Your task to perform on an android device: open app "Fetch Rewards" (install if not already installed), go to login, and select forgot password Image 0: 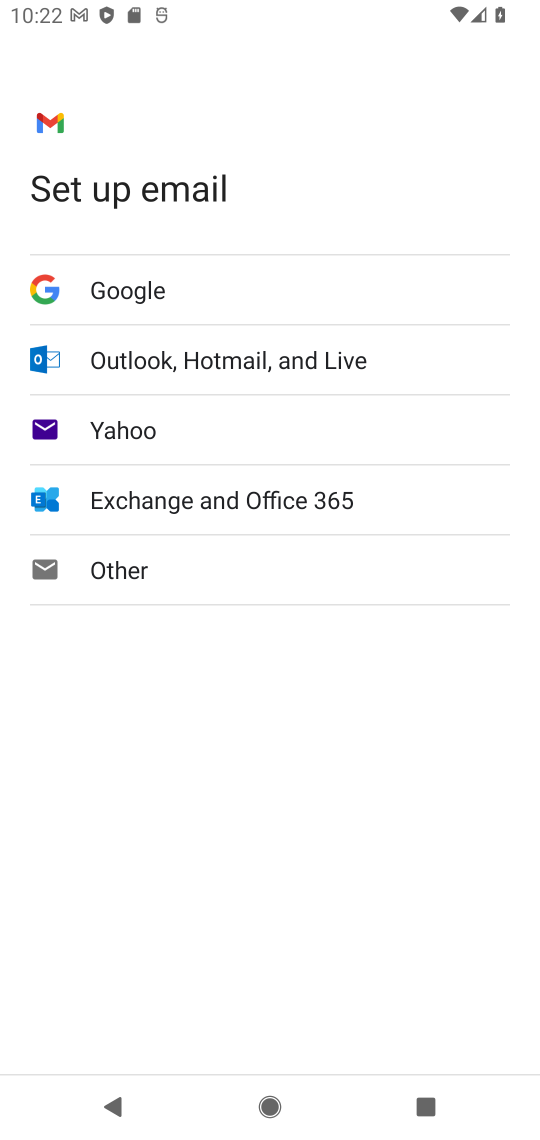
Step 0: press home button
Your task to perform on an android device: open app "Fetch Rewards" (install if not already installed), go to login, and select forgot password Image 1: 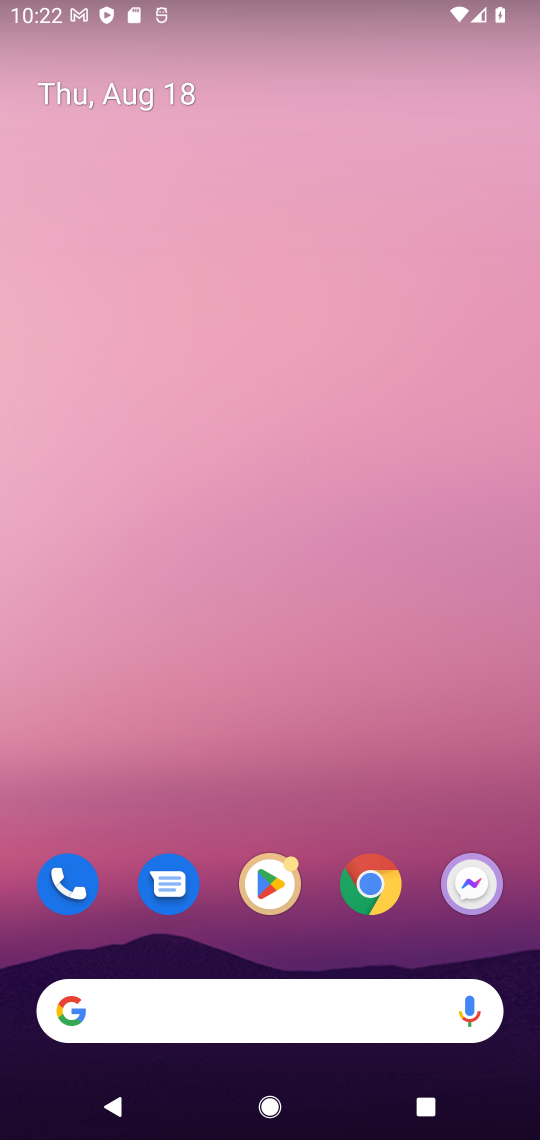
Step 1: drag from (214, 996) to (390, 206)
Your task to perform on an android device: open app "Fetch Rewards" (install if not already installed), go to login, and select forgot password Image 2: 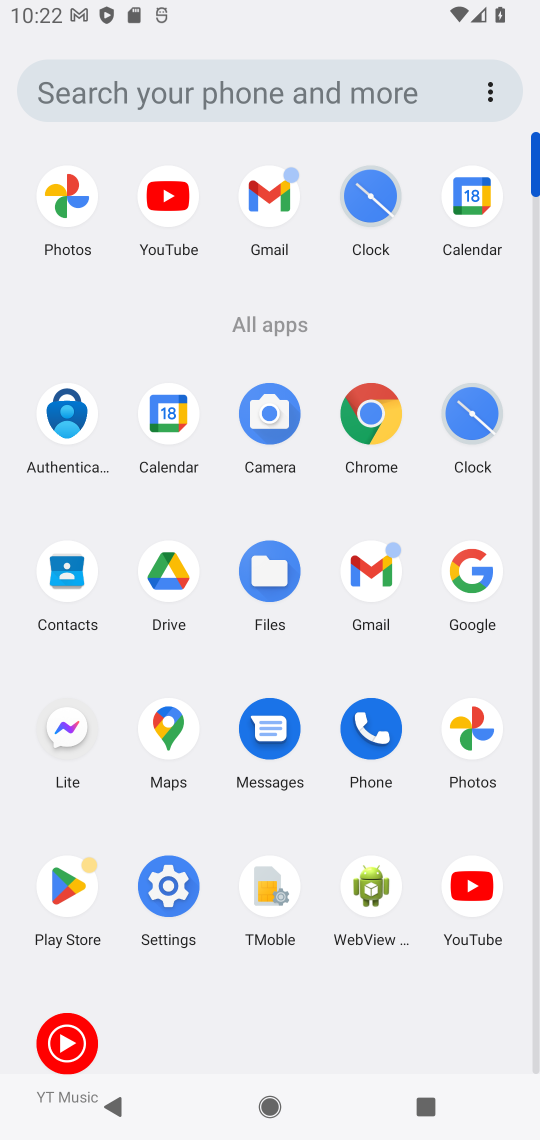
Step 2: click (69, 887)
Your task to perform on an android device: open app "Fetch Rewards" (install if not already installed), go to login, and select forgot password Image 3: 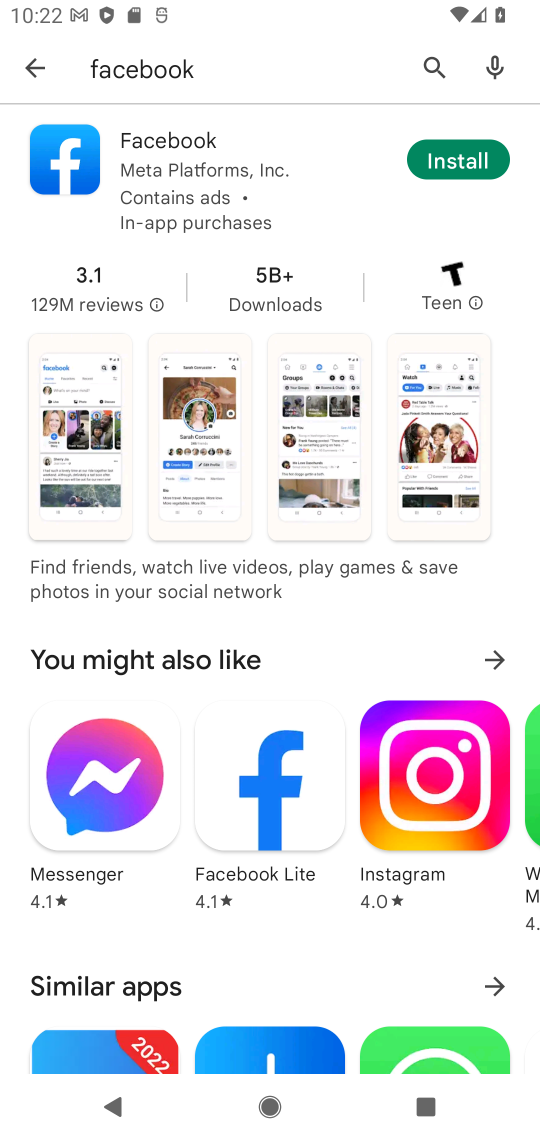
Step 3: press back button
Your task to perform on an android device: open app "Fetch Rewards" (install if not already installed), go to login, and select forgot password Image 4: 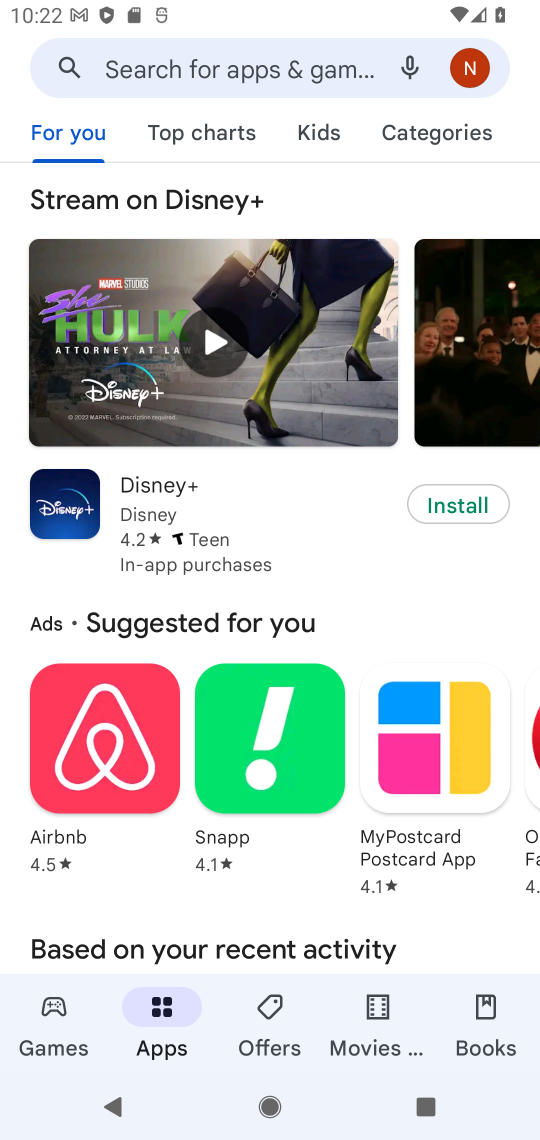
Step 4: click (317, 70)
Your task to perform on an android device: open app "Fetch Rewards" (install if not already installed), go to login, and select forgot password Image 5: 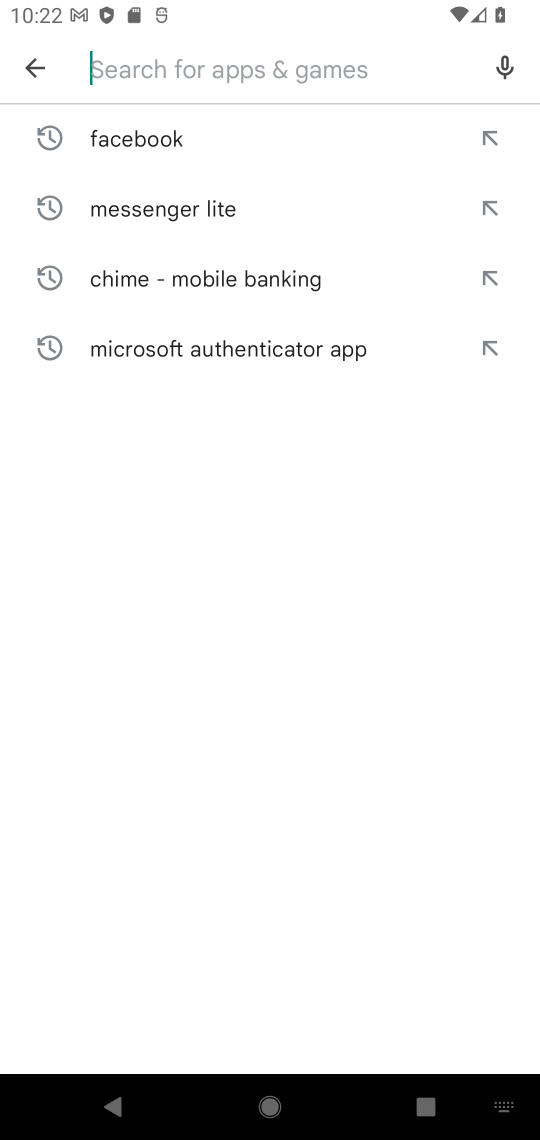
Step 5: type "Fetch Rewards"
Your task to perform on an android device: open app "Fetch Rewards" (install if not already installed), go to login, and select forgot password Image 6: 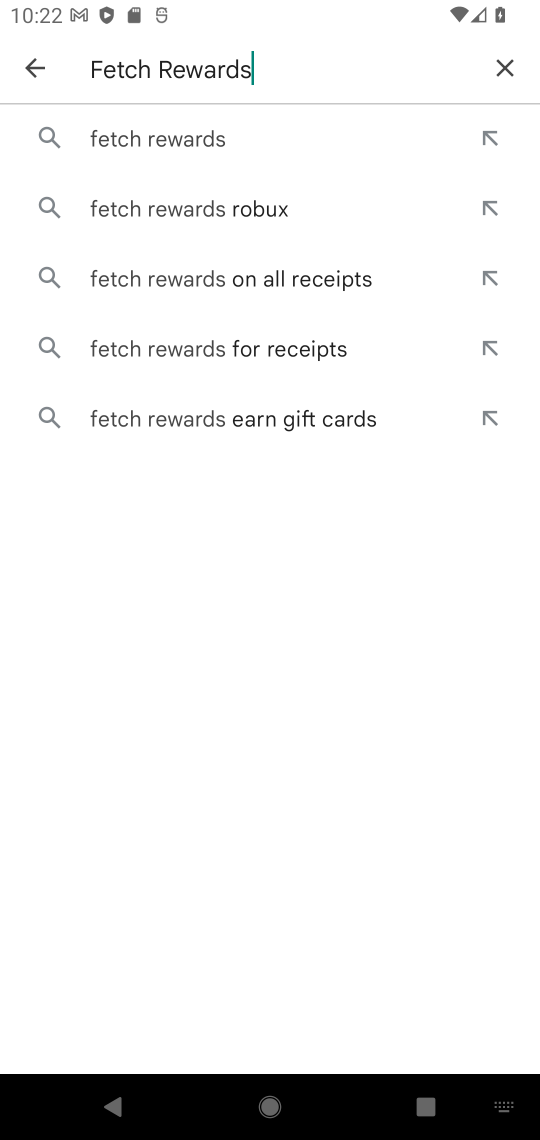
Step 6: click (191, 131)
Your task to perform on an android device: open app "Fetch Rewards" (install if not already installed), go to login, and select forgot password Image 7: 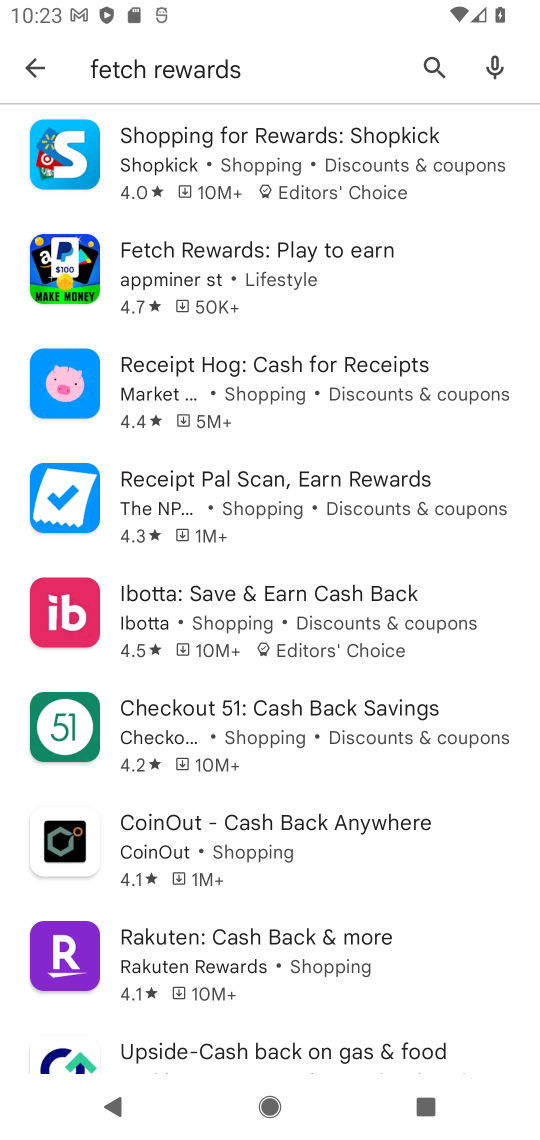
Step 7: click (208, 249)
Your task to perform on an android device: open app "Fetch Rewards" (install if not already installed), go to login, and select forgot password Image 8: 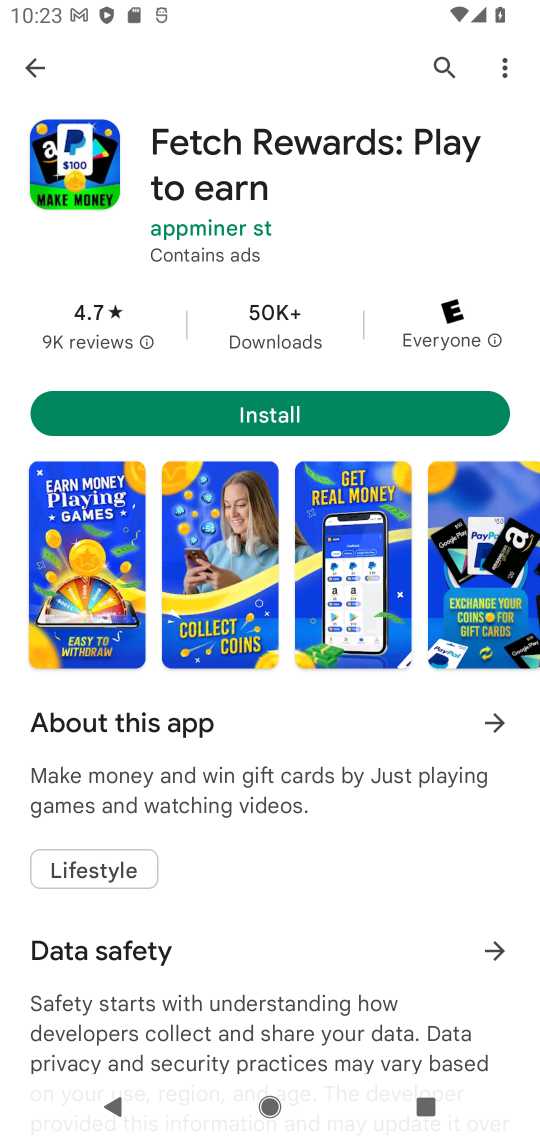
Step 8: click (281, 415)
Your task to perform on an android device: open app "Fetch Rewards" (install if not already installed), go to login, and select forgot password Image 9: 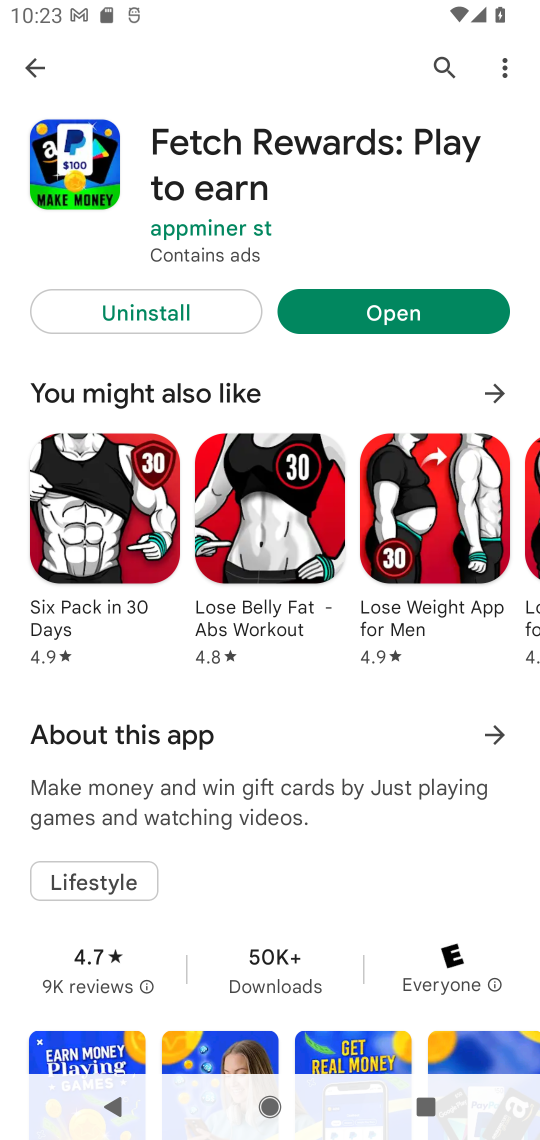
Step 9: click (386, 314)
Your task to perform on an android device: open app "Fetch Rewards" (install if not already installed), go to login, and select forgot password Image 10: 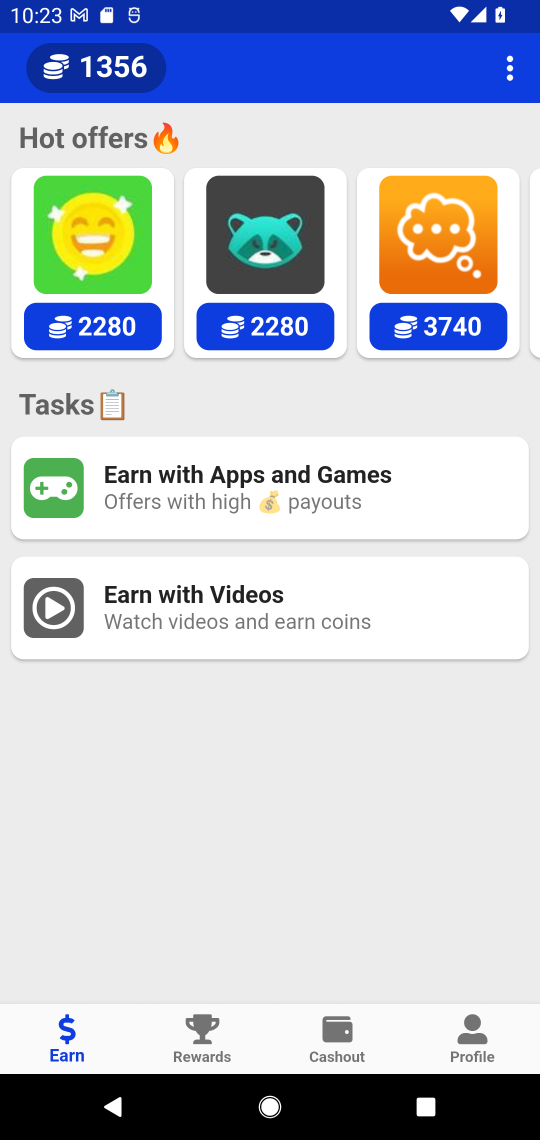
Step 10: click (469, 1038)
Your task to perform on an android device: open app "Fetch Rewards" (install if not already installed), go to login, and select forgot password Image 11: 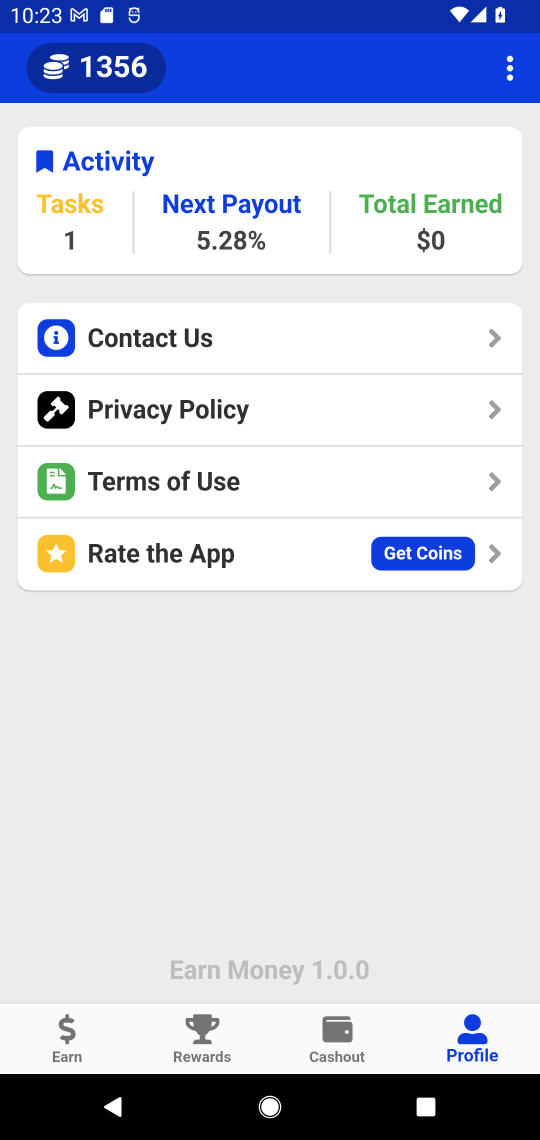
Step 11: click (159, 339)
Your task to perform on an android device: open app "Fetch Rewards" (install if not already installed), go to login, and select forgot password Image 12: 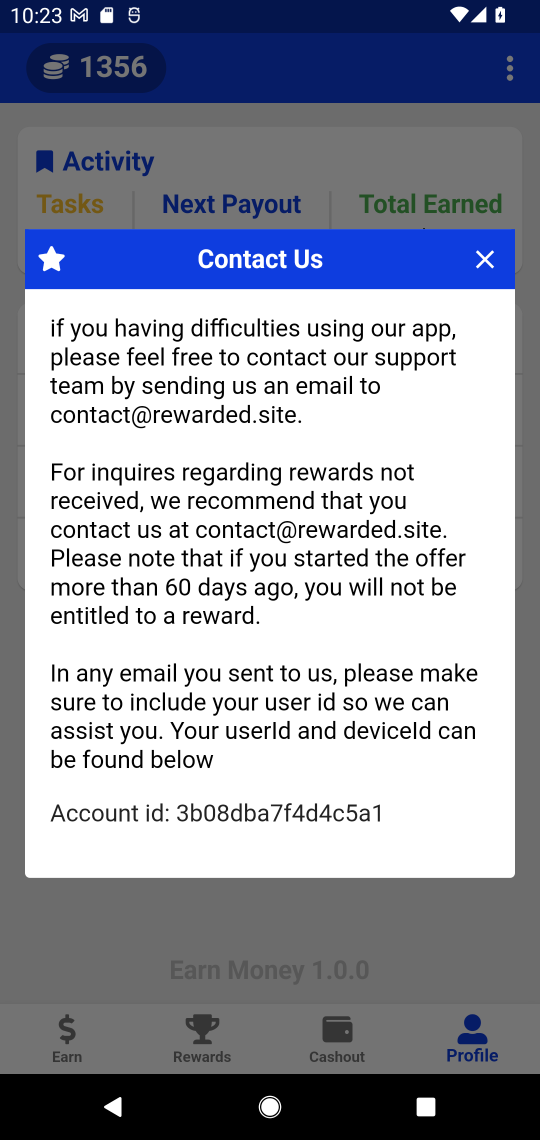
Step 12: click (478, 251)
Your task to perform on an android device: open app "Fetch Rewards" (install if not already installed), go to login, and select forgot password Image 13: 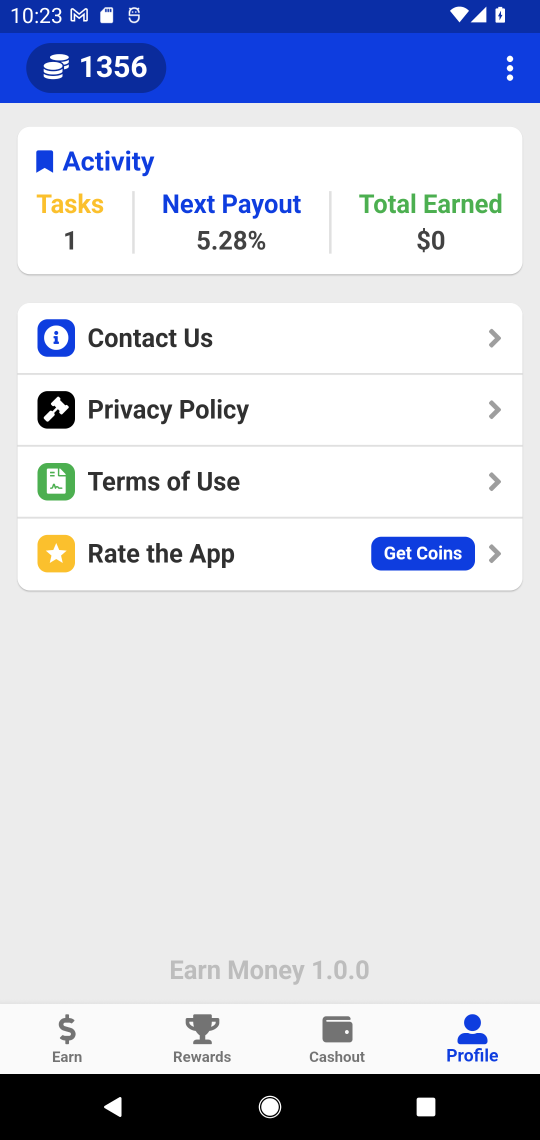
Step 13: click (510, 58)
Your task to perform on an android device: open app "Fetch Rewards" (install if not already installed), go to login, and select forgot password Image 14: 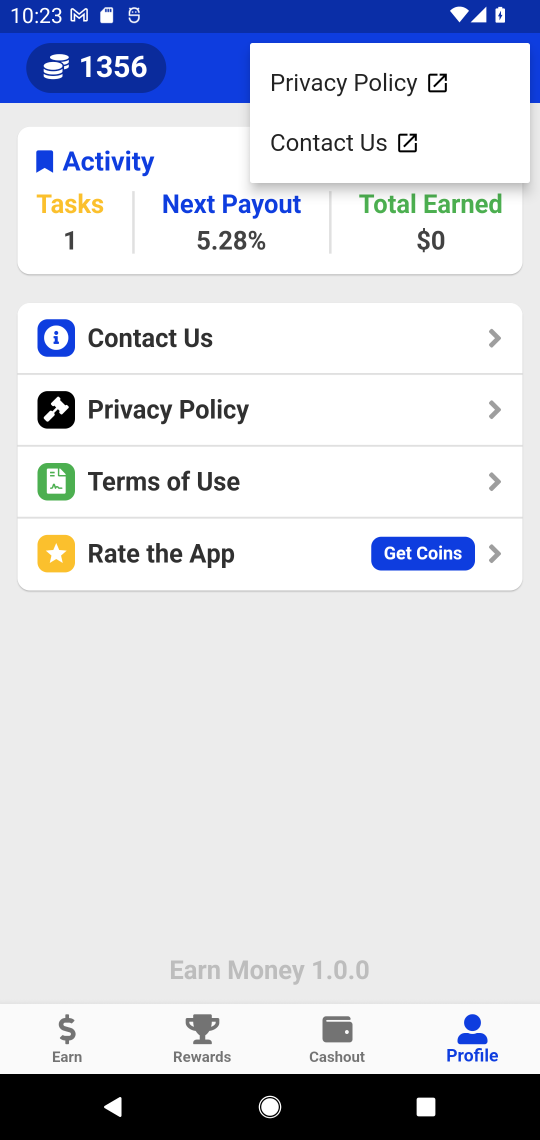
Step 14: click (354, 147)
Your task to perform on an android device: open app "Fetch Rewards" (install if not already installed), go to login, and select forgot password Image 15: 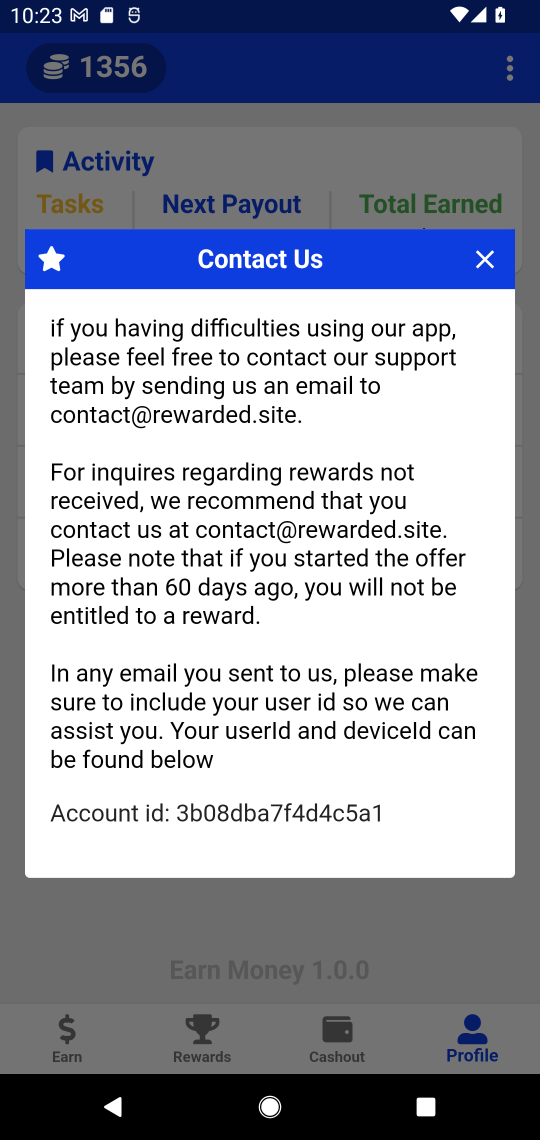
Step 15: click (478, 271)
Your task to perform on an android device: open app "Fetch Rewards" (install if not already installed), go to login, and select forgot password Image 16: 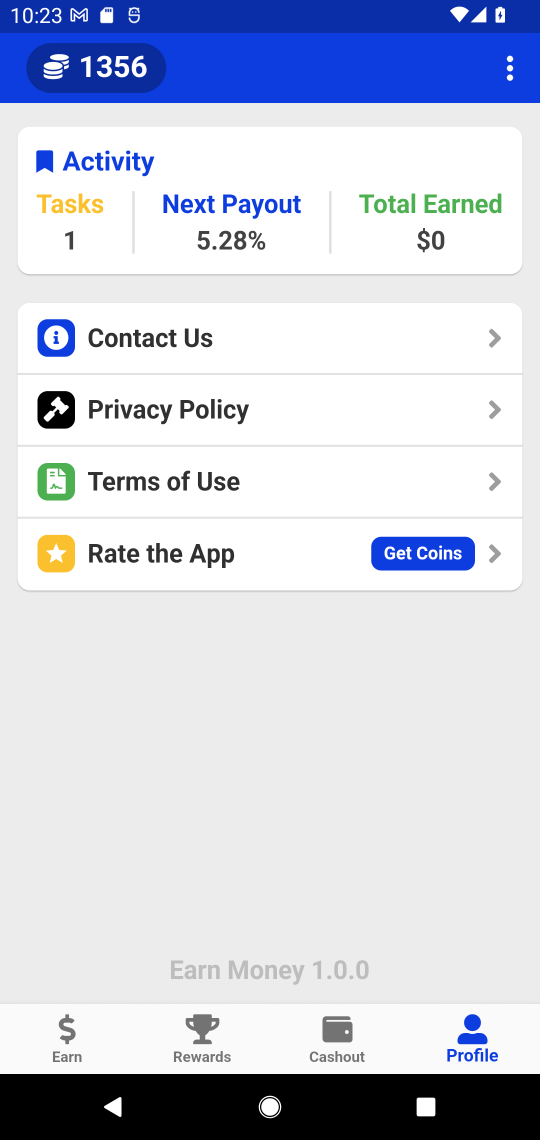
Step 16: task complete